Your task to perform on an android device: Open Chrome and go to the settings page Image 0: 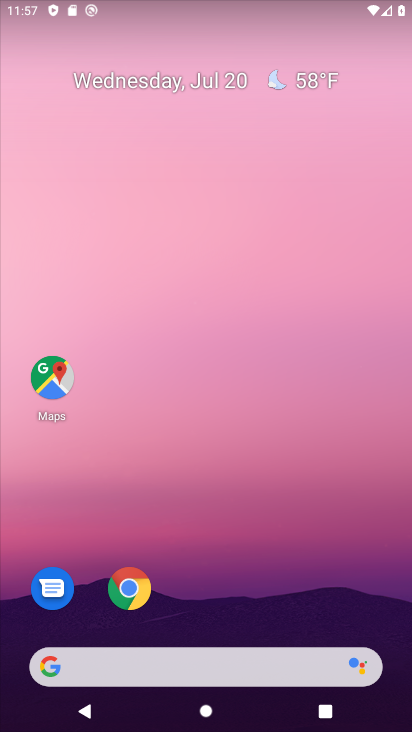
Step 0: click (123, 592)
Your task to perform on an android device: Open Chrome and go to the settings page Image 1: 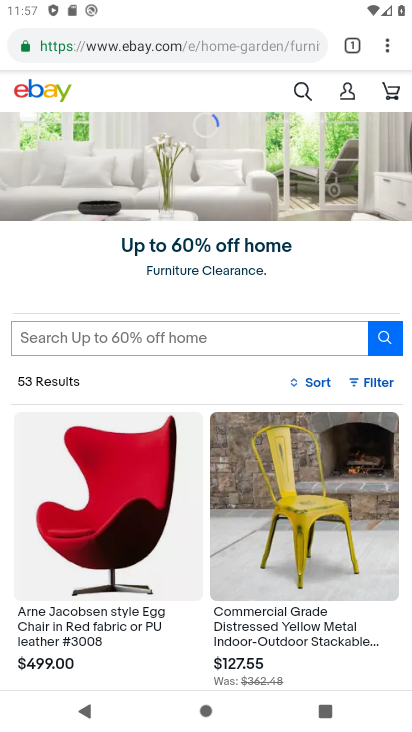
Step 1: click (385, 54)
Your task to perform on an android device: Open Chrome and go to the settings page Image 2: 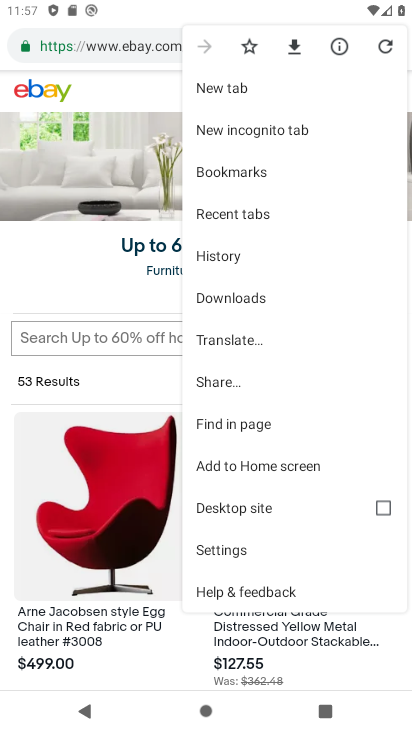
Step 2: click (223, 551)
Your task to perform on an android device: Open Chrome and go to the settings page Image 3: 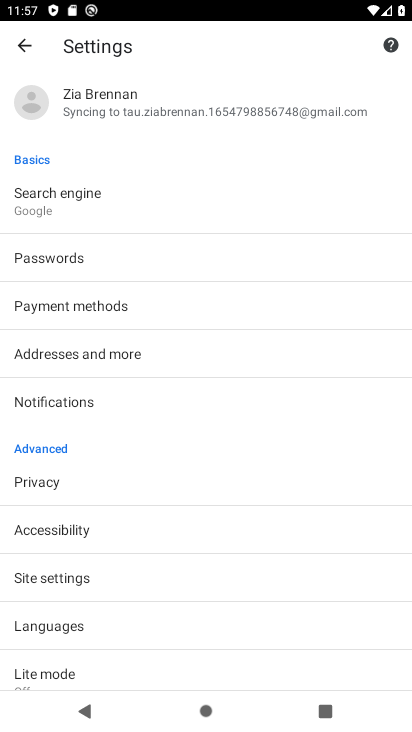
Step 3: task complete